Your task to perform on an android device: Open Yahoo.com Image 0: 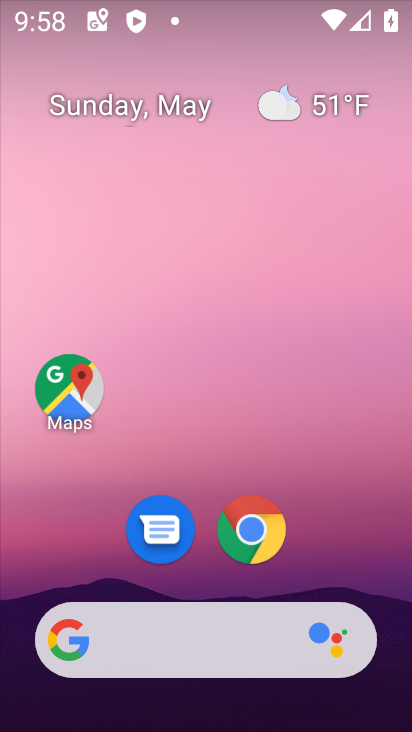
Step 0: drag from (396, 632) to (337, 89)
Your task to perform on an android device: Open Yahoo.com Image 1: 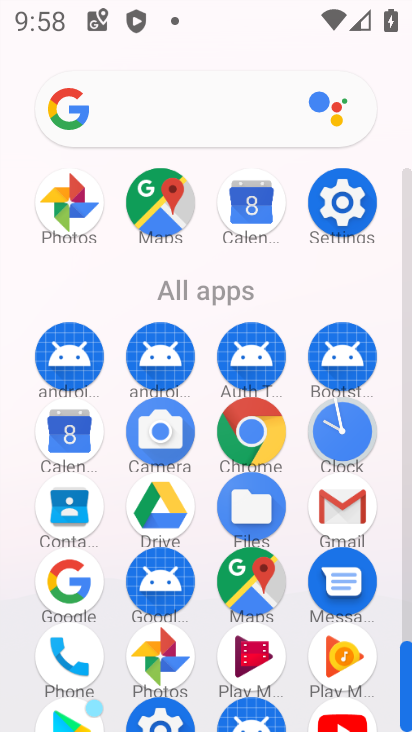
Step 1: click (252, 432)
Your task to perform on an android device: Open Yahoo.com Image 2: 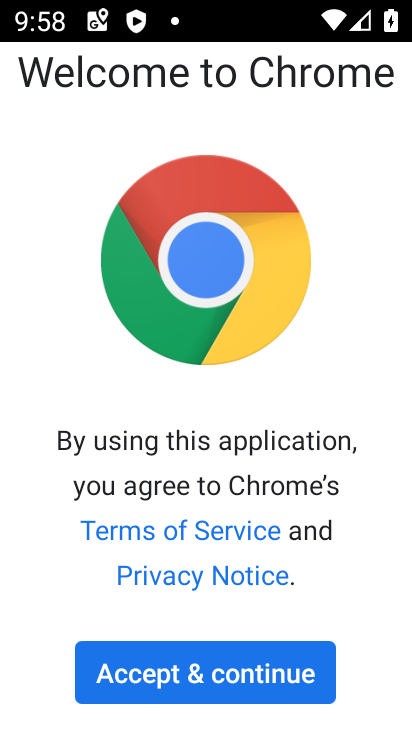
Step 2: click (253, 683)
Your task to perform on an android device: Open Yahoo.com Image 3: 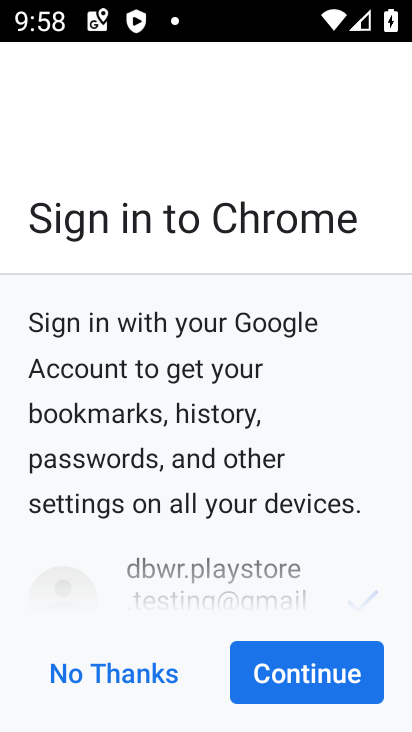
Step 3: click (93, 679)
Your task to perform on an android device: Open Yahoo.com Image 4: 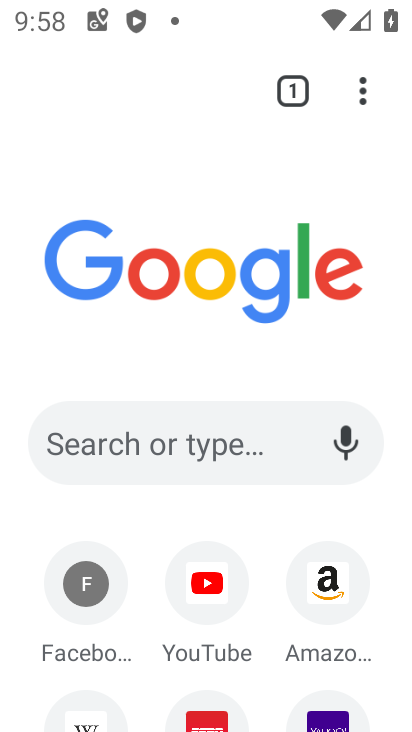
Step 4: drag from (214, 662) to (259, 320)
Your task to perform on an android device: Open Yahoo.com Image 5: 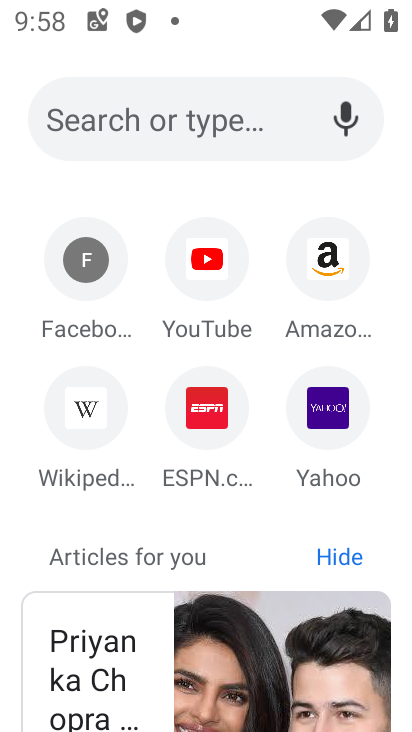
Step 5: click (321, 476)
Your task to perform on an android device: Open Yahoo.com Image 6: 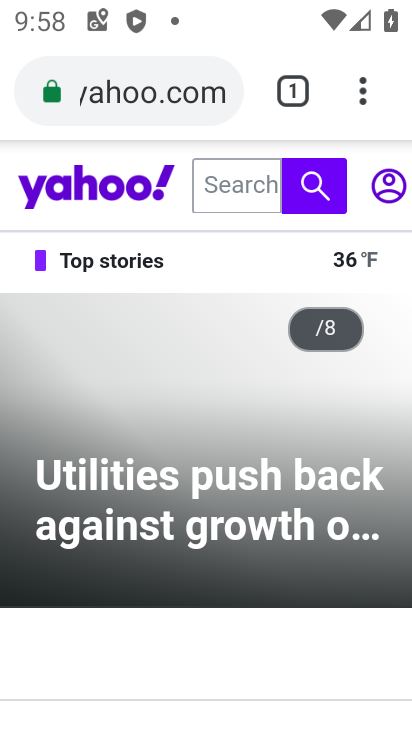
Step 6: task complete